Your task to perform on an android device: toggle translation in the chrome app Image 0: 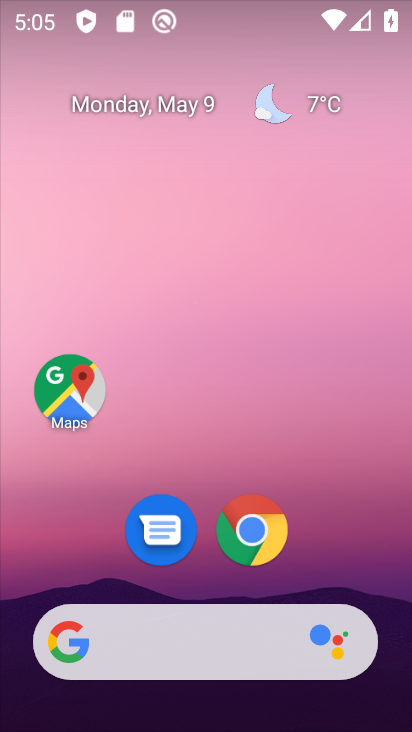
Step 0: drag from (291, 578) to (282, 155)
Your task to perform on an android device: toggle translation in the chrome app Image 1: 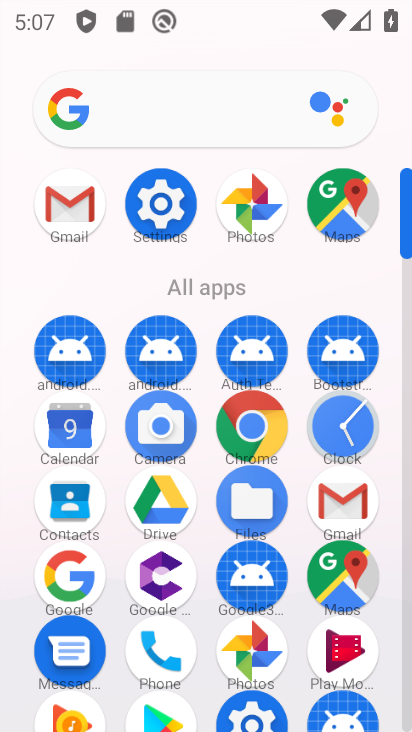
Step 1: click (238, 438)
Your task to perform on an android device: toggle translation in the chrome app Image 2: 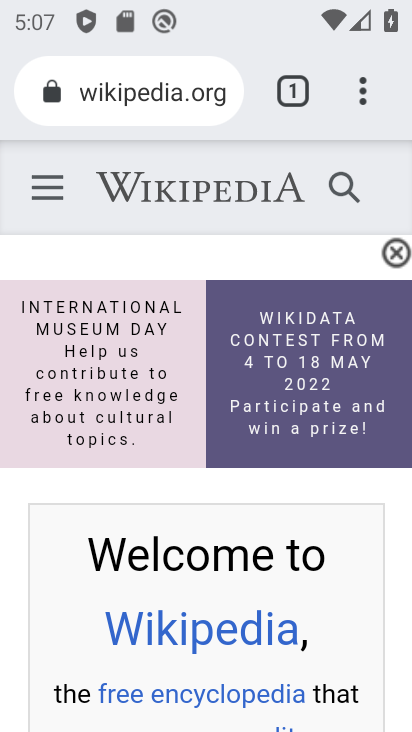
Step 2: click (374, 88)
Your task to perform on an android device: toggle translation in the chrome app Image 3: 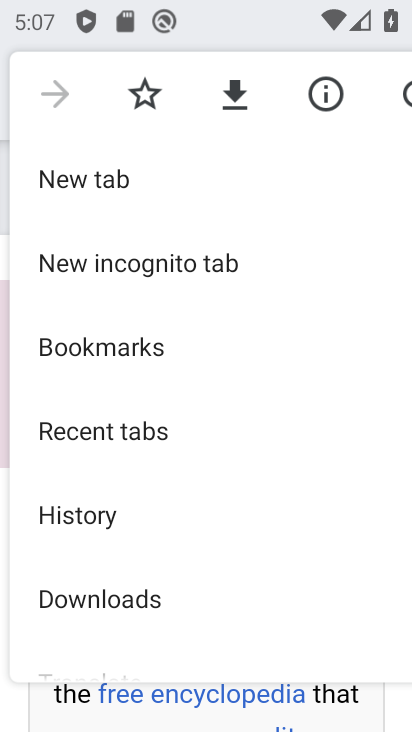
Step 3: drag from (211, 579) to (207, 166)
Your task to perform on an android device: toggle translation in the chrome app Image 4: 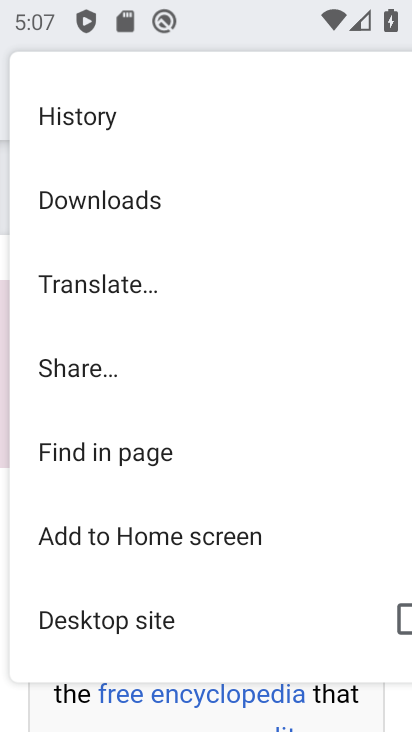
Step 4: drag from (132, 554) to (158, 208)
Your task to perform on an android device: toggle translation in the chrome app Image 5: 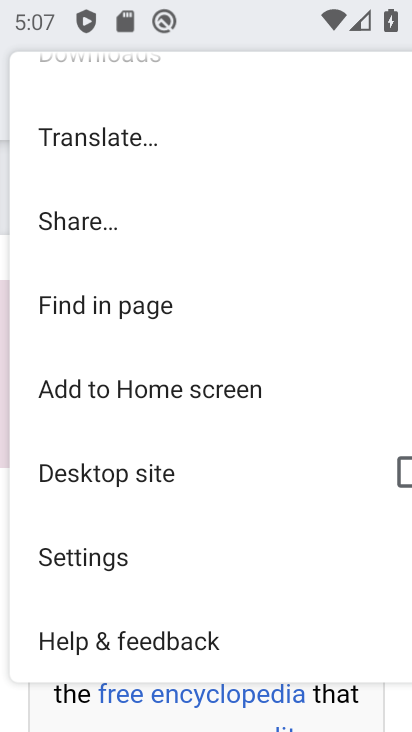
Step 5: click (111, 553)
Your task to perform on an android device: toggle translation in the chrome app Image 6: 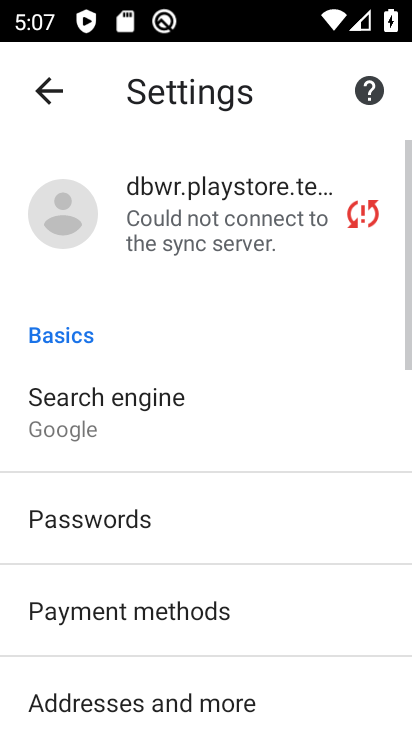
Step 6: drag from (180, 528) to (177, 165)
Your task to perform on an android device: toggle translation in the chrome app Image 7: 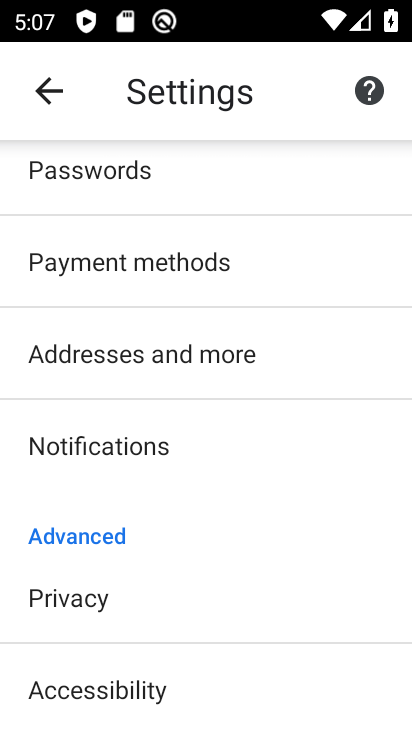
Step 7: drag from (149, 613) to (150, 227)
Your task to perform on an android device: toggle translation in the chrome app Image 8: 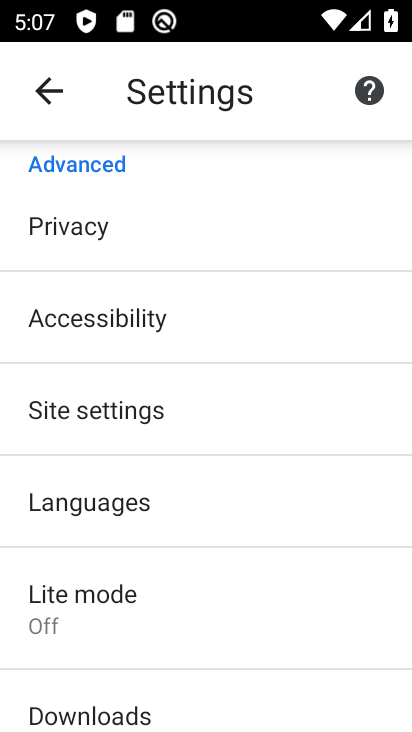
Step 8: click (144, 506)
Your task to perform on an android device: toggle translation in the chrome app Image 9: 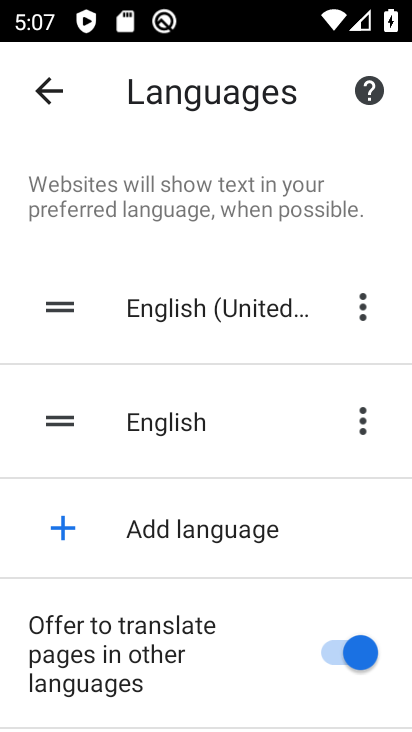
Step 9: click (325, 638)
Your task to perform on an android device: toggle translation in the chrome app Image 10: 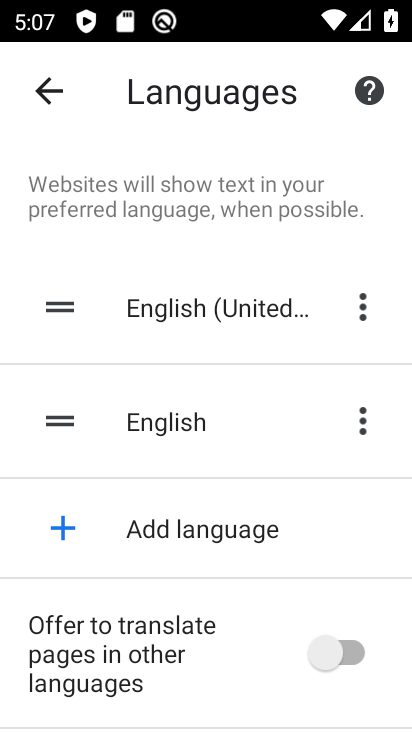
Step 10: task complete